Your task to perform on an android device: change the clock display to analog Image 0: 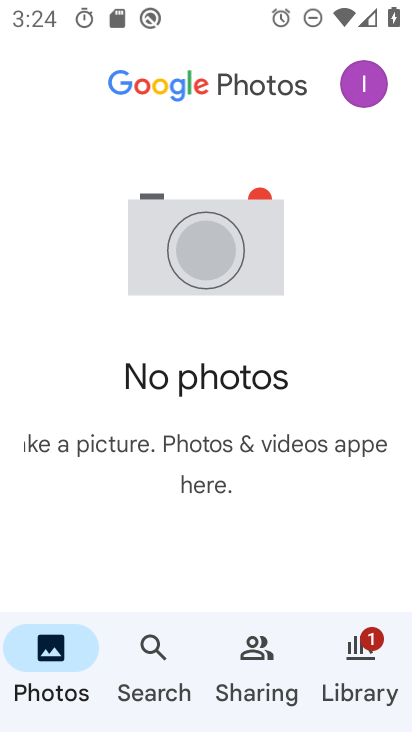
Step 0: press home button
Your task to perform on an android device: change the clock display to analog Image 1: 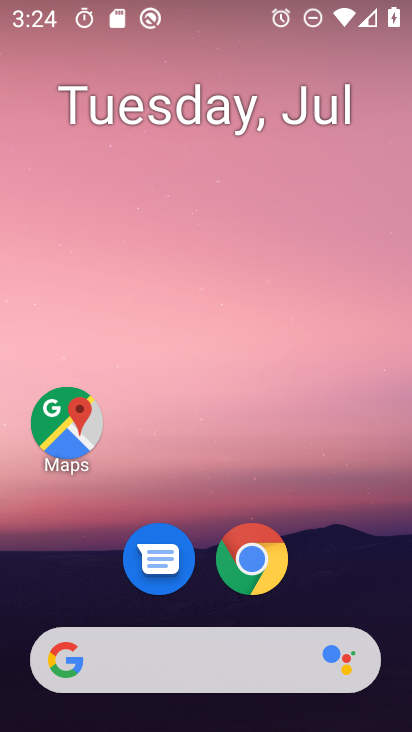
Step 1: drag from (350, 593) to (398, 191)
Your task to perform on an android device: change the clock display to analog Image 2: 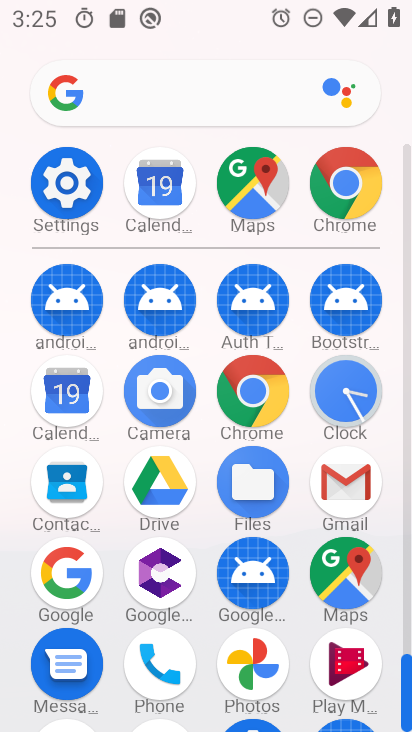
Step 2: click (353, 398)
Your task to perform on an android device: change the clock display to analog Image 3: 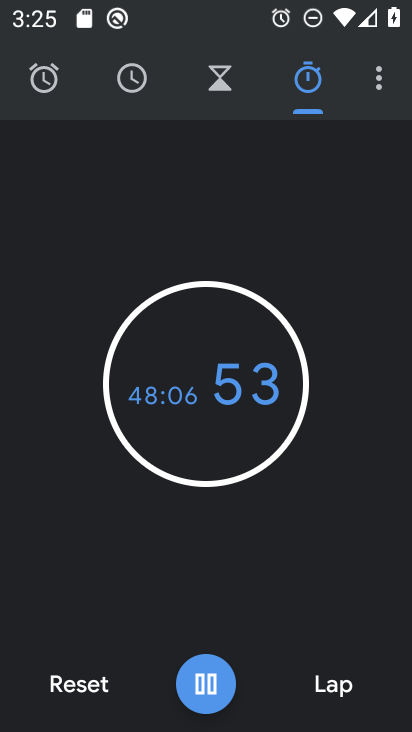
Step 3: click (381, 86)
Your task to perform on an android device: change the clock display to analog Image 4: 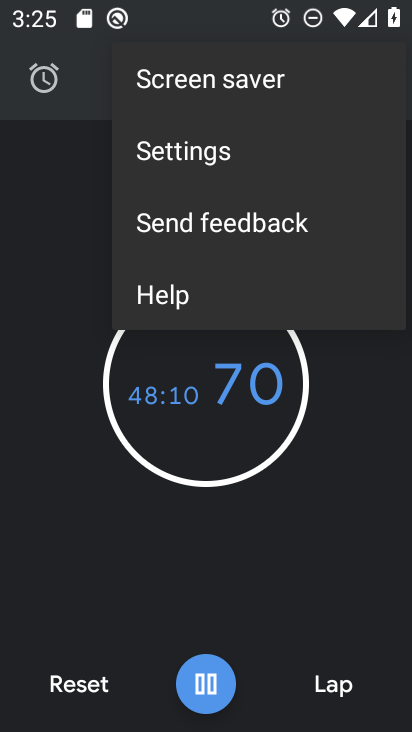
Step 4: click (246, 159)
Your task to perform on an android device: change the clock display to analog Image 5: 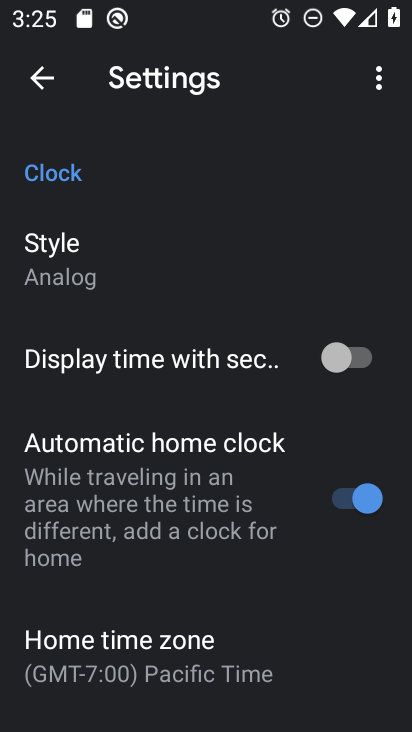
Step 5: task complete